Your task to perform on an android device: find which apps use the phone's location Image 0: 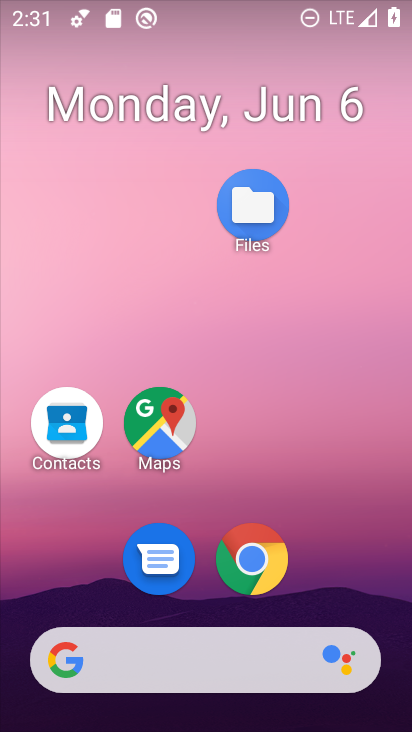
Step 0: drag from (303, 659) to (366, 167)
Your task to perform on an android device: find which apps use the phone's location Image 1: 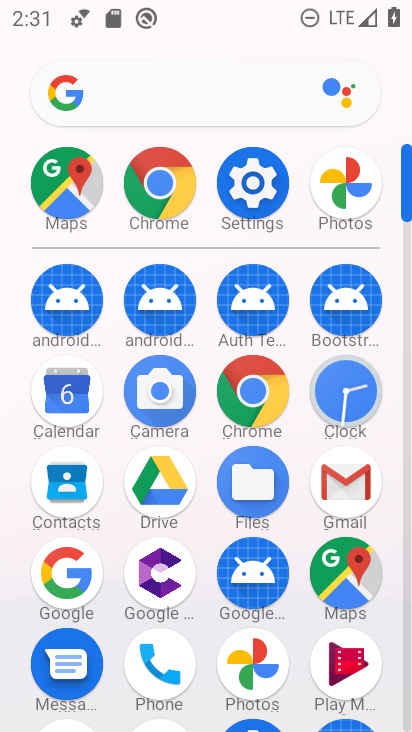
Step 1: click (269, 205)
Your task to perform on an android device: find which apps use the phone's location Image 2: 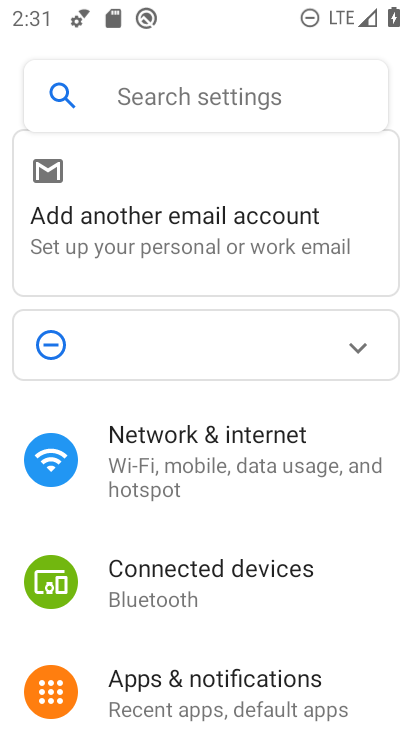
Step 2: drag from (207, 614) to (291, 167)
Your task to perform on an android device: find which apps use the phone's location Image 3: 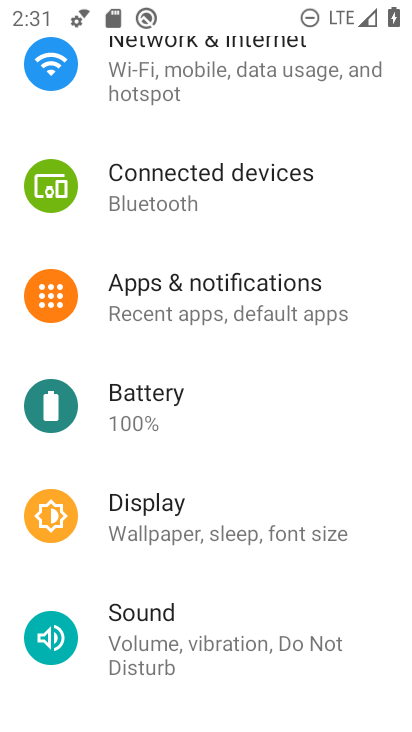
Step 3: drag from (202, 577) to (281, 239)
Your task to perform on an android device: find which apps use the phone's location Image 4: 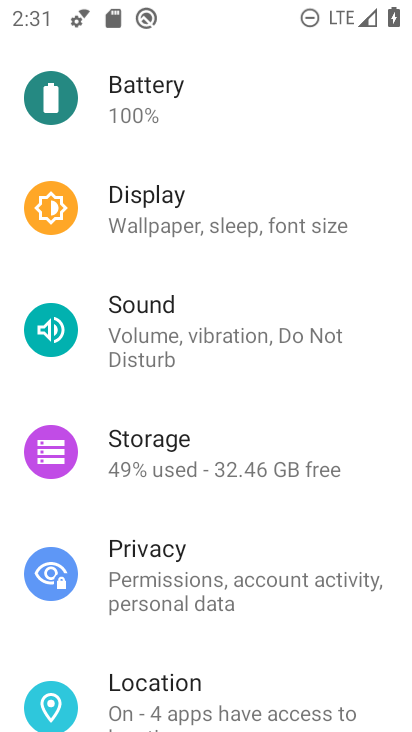
Step 4: drag from (198, 565) to (244, 384)
Your task to perform on an android device: find which apps use the phone's location Image 5: 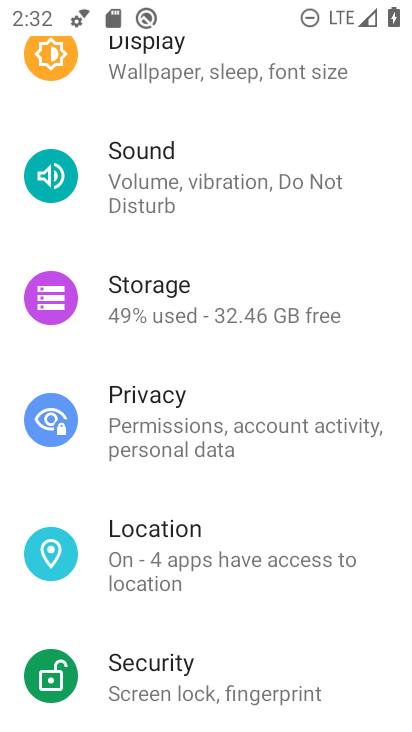
Step 5: click (216, 546)
Your task to perform on an android device: find which apps use the phone's location Image 6: 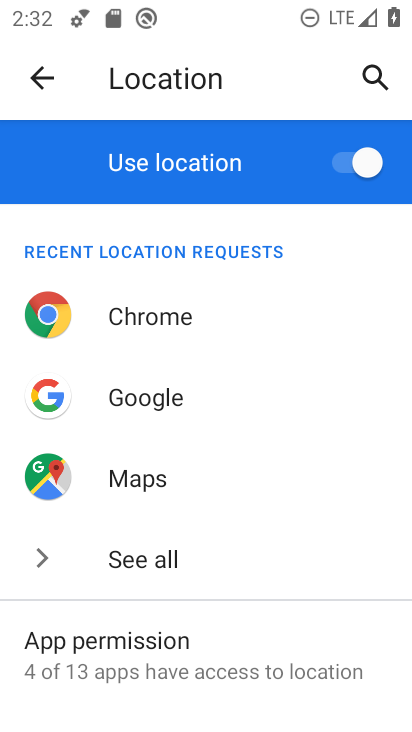
Step 6: click (215, 672)
Your task to perform on an android device: find which apps use the phone's location Image 7: 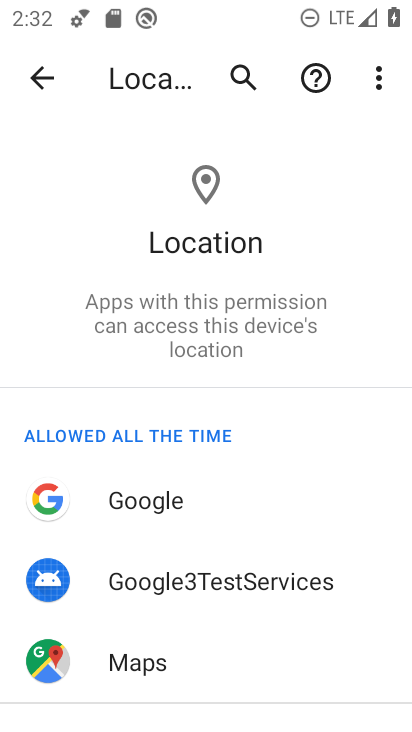
Step 7: task complete